Your task to perform on an android device: What is the recent news? Image 0: 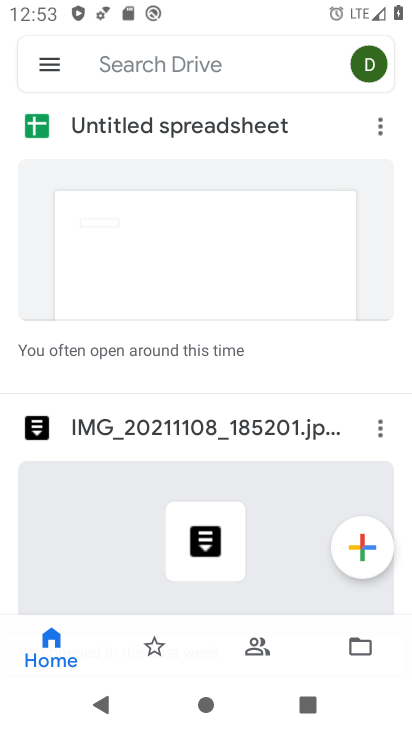
Step 0: press home button
Your task to perform on an android device: What is the recent news? Image 1: 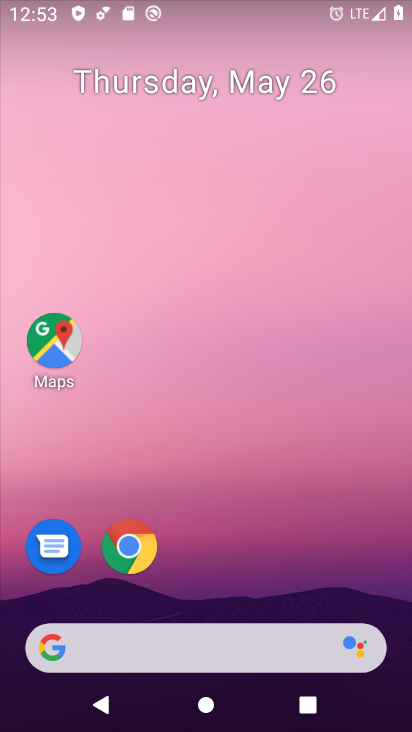
Step 1: drag from (396, 635) to (291, 91)
Your task to perform on an android device: What is the recent news? Image 2: 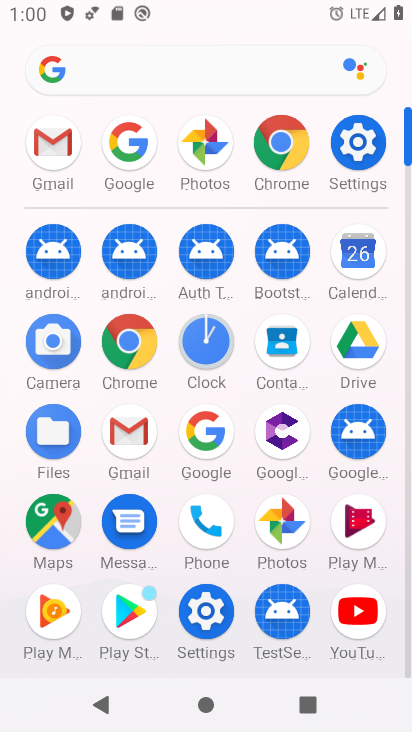
Step 2: click (211, 432)
Your task to perform on an android device: What is the recent news? Image 3: 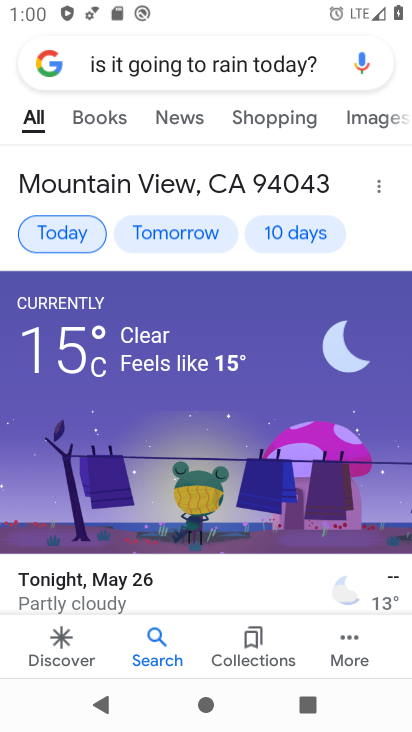
Step 3: task complete